Your task to perform on an android device: open a new tab in the chrome app Image 0: 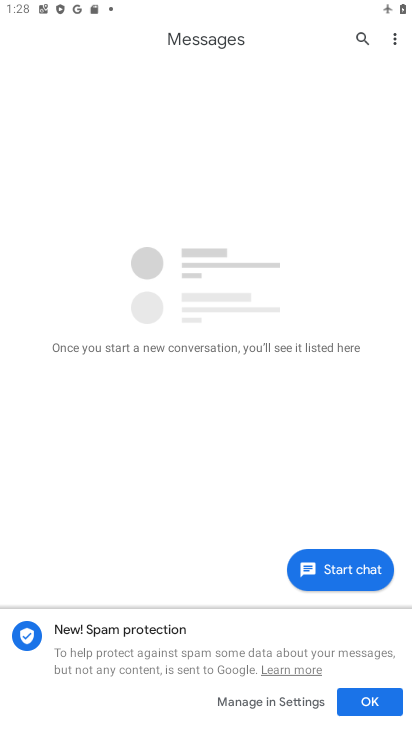
Step 0: press home button
Your task to perform on an android device: open a new tab in the chrome app Image 1: 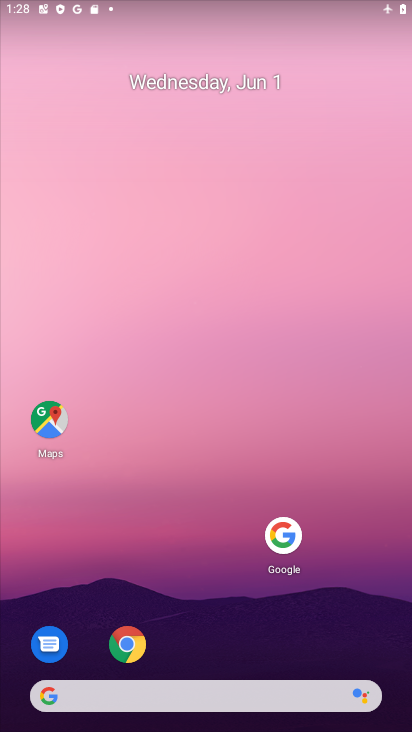
Step 1: click (120, 647)
Your task to perform on an android device: open a new tab in the chrome app Image 2: 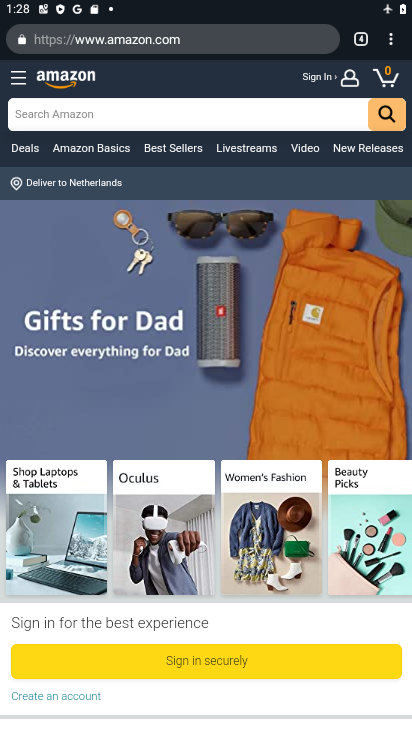
Step 2: task complete